Your task to perform on an android device: turn on sleep mode Image 0: 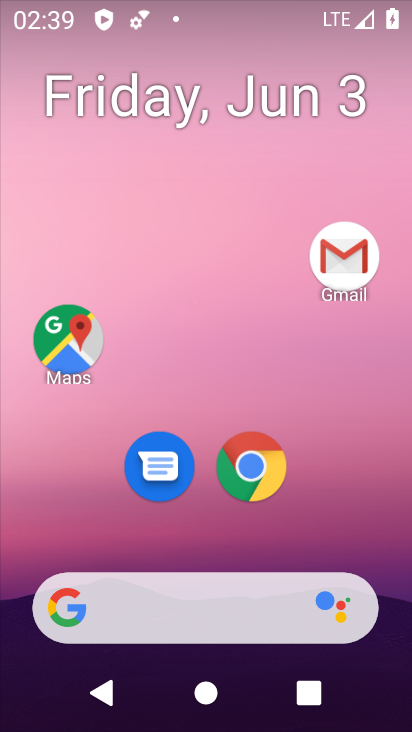
Step 0: press home button
Your task to perform on an android device: turn on sleep mode Image 1: 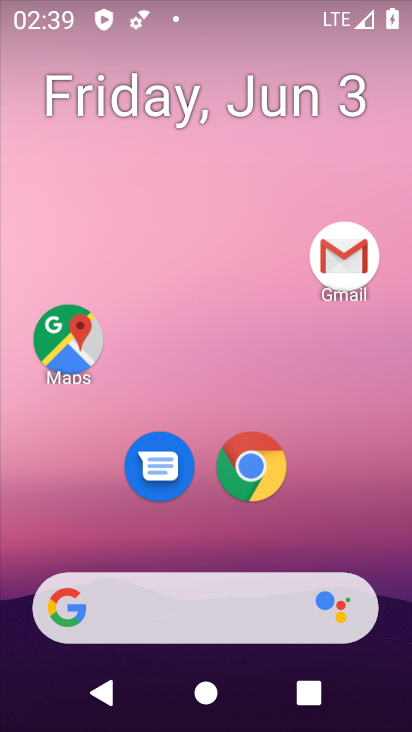
Step 1: drag from (197, 538) to (156, 15)
Your task to perform on an android device: turn on sleep mode Image 2: 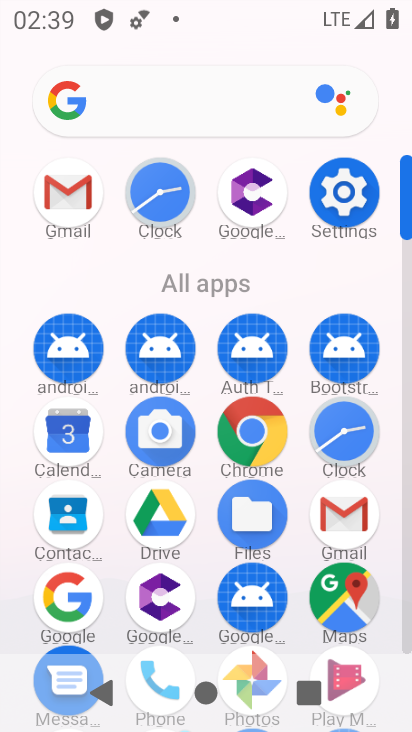
Step 2: click (337, 198)
Your task to perform on an android device: turn on sleep mode Image 3: 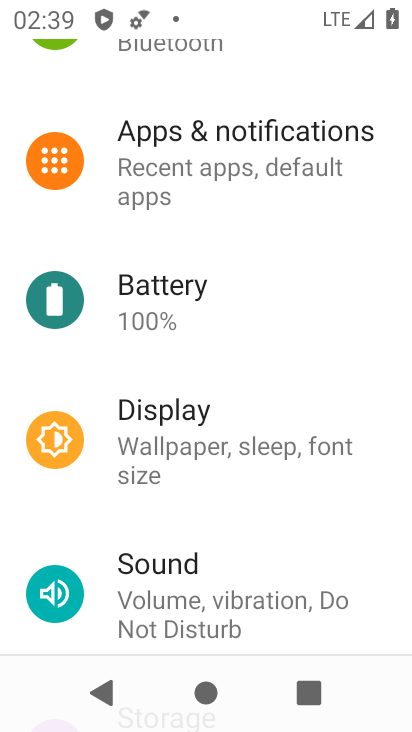
Step 3: task complete